Your task to perform on an android device: toggle show notifications on the lock screen Image 0: 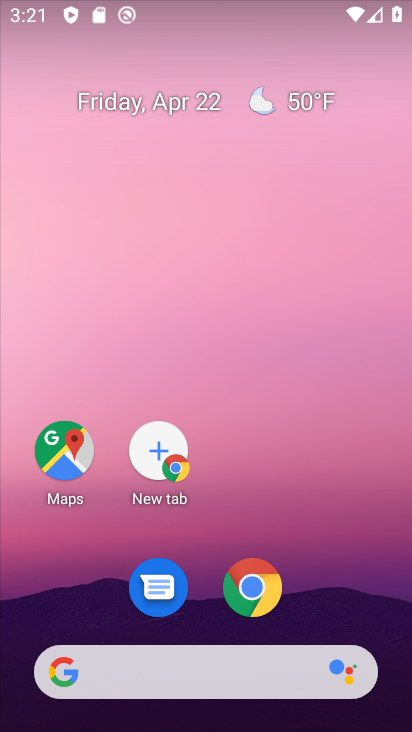
Step 0: drag from (190, 540) to (276, 187)
Your task to perform on an android device: toggle show notifications on the lock screen Image 1: 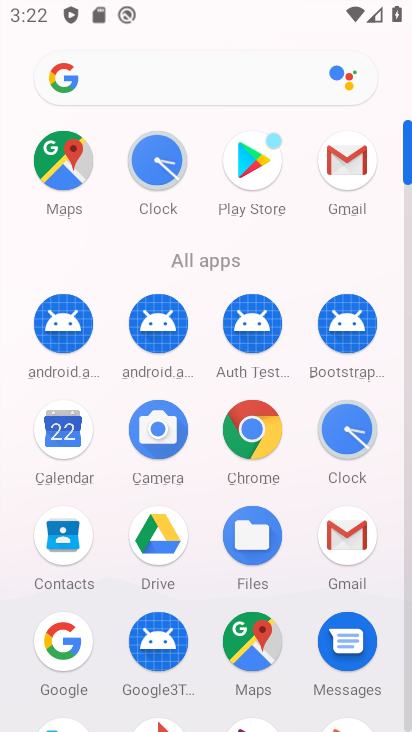
Step 1: drag from (206, 634) to (302, 79)
Your task to perform on an android device: toggle show notifications on the lock screen Image 2: 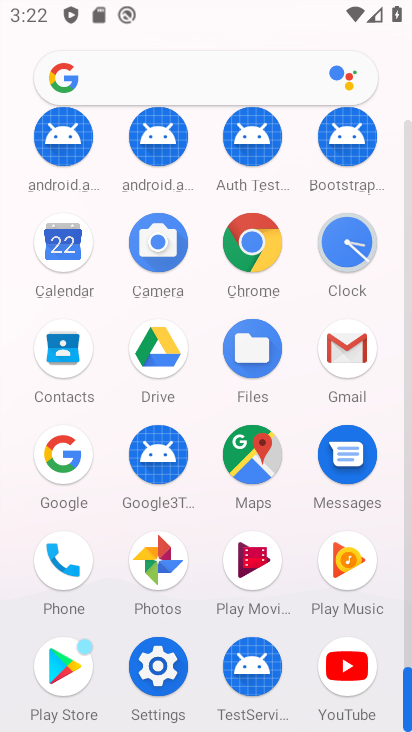
Step 2: click (154, 670)
Your task to perform on an android device: toggle show notifications on the lock screen Image 3: 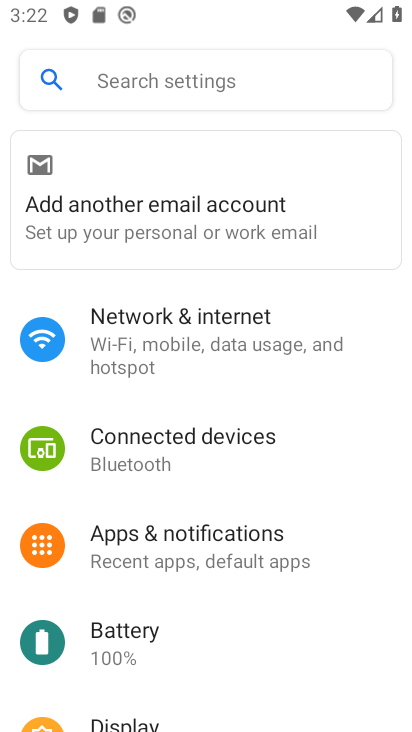
Step 3: click (196, 566)
Your task to perform on an android device: toggle show notifications on the lock screen Image 4: 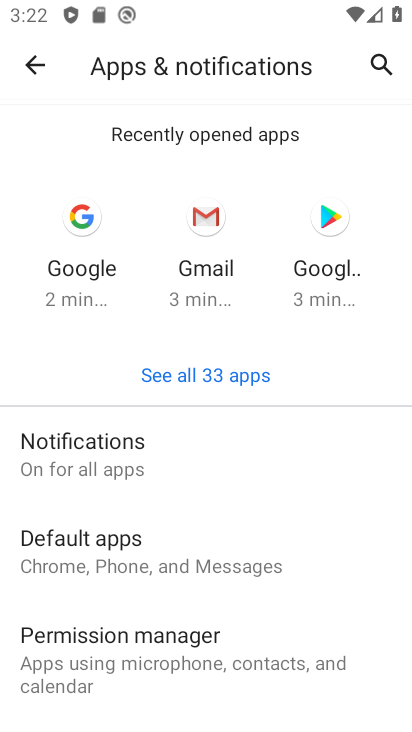
Step 4: click (143, 448)
Your task to perform on an android device: toggle show notifications on the lock screen Image 5: 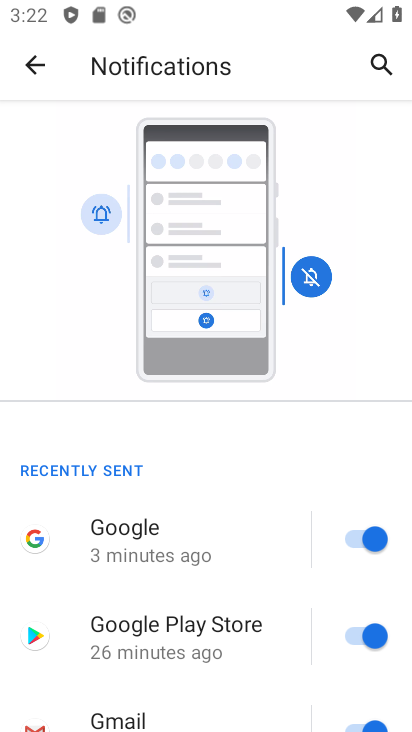
Step 5: drag from (224, 585) to (207, 206)
Your task to perform on an android device: toggle show notifications on the lock screen Image 6: 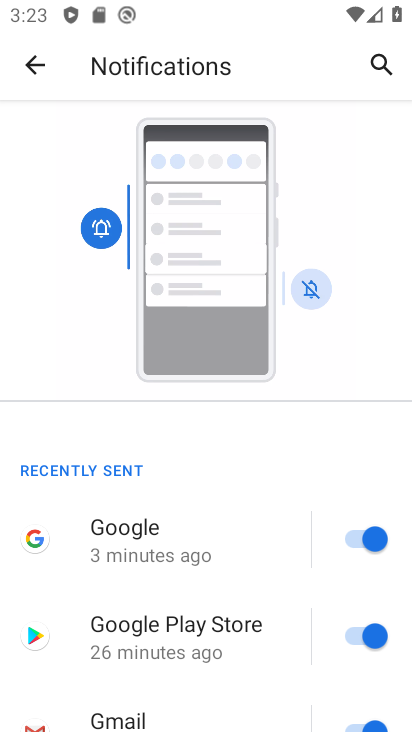
Step 6: drag from (136, 674) to (153, 305)
Your task to perform on an android device: toggle show notifications on the lock screen Image 7: 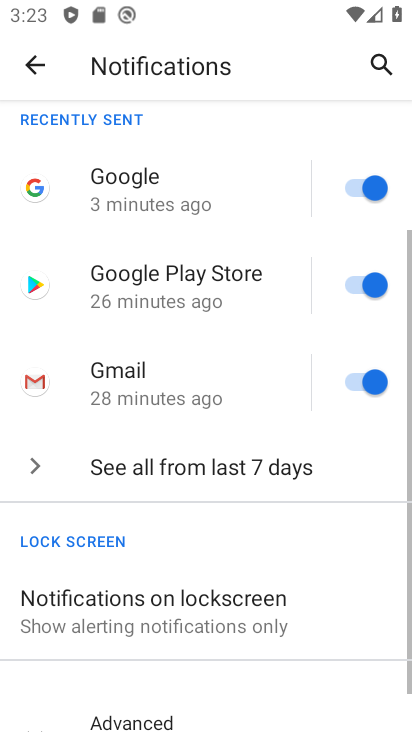
Step 7: drag from (135, 675) to (139, 181)
Your task to perform on an android device: toggle show notifications on the lock screen Image 8: 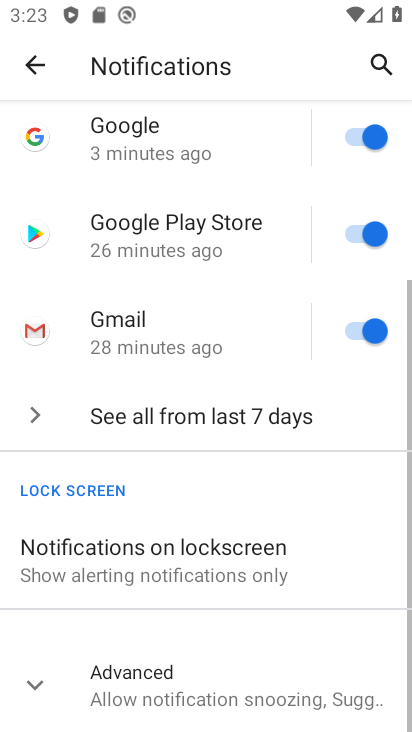
Step 8: click (153, 577)
Your task to perform on an android device: toggle show notifications on the lock screen Image 9: 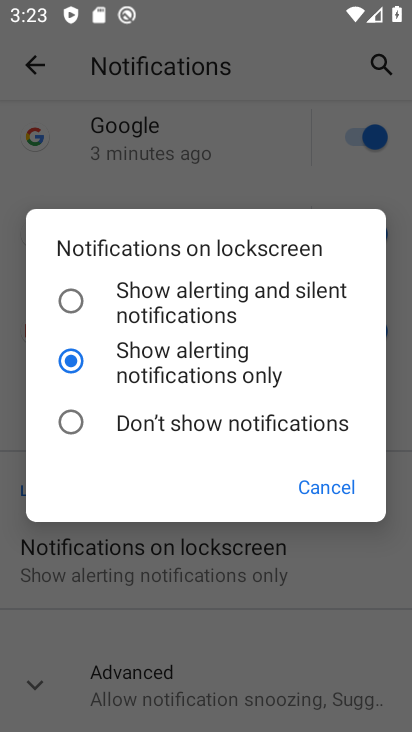
Step 9: click (183, 314)
Your task to perform on an android device: toggle show notifications on the lock screen Image 10: 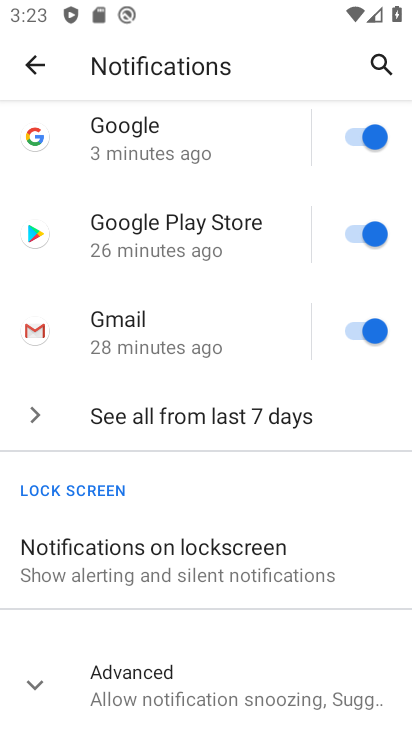
Step 10: task complete